Your task to perform on an android device: Open Maps and search for coffee Image 0: 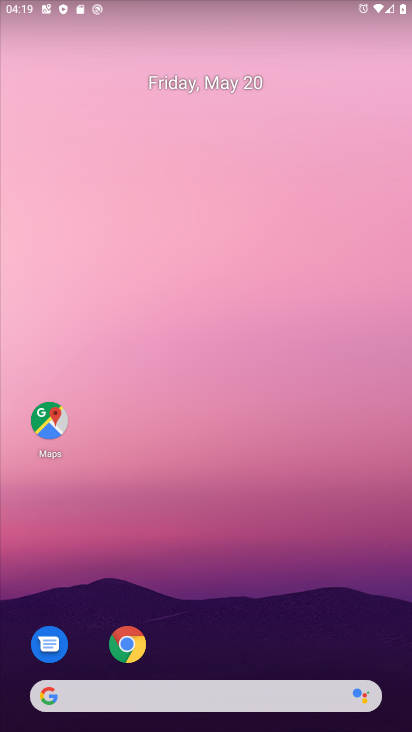
Step 0: drag from (276, 636) to (231, 116)
Your task to perform on an android device: Open Maps and search for coffee Image 1: 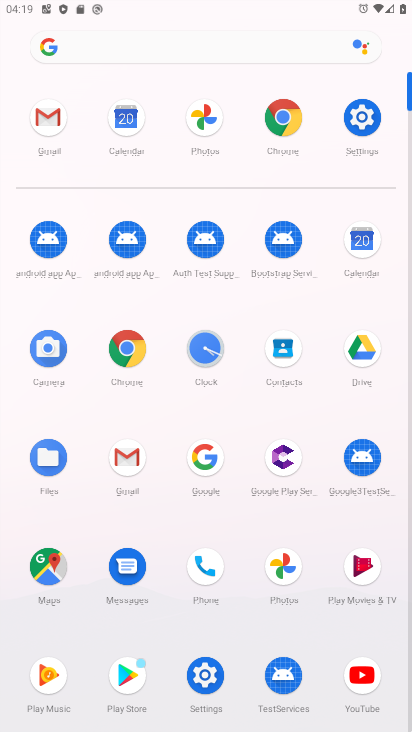
Step 1: click (56, 568)
Your task to perform on an android device: Open Maps and search for coffee Image 2: 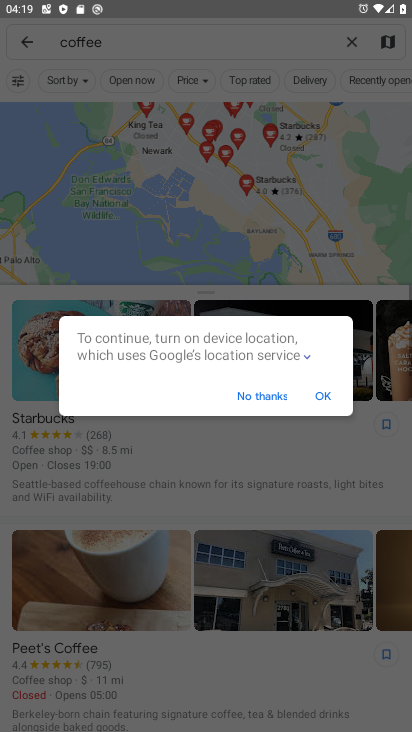
Step 2: task complete